Your task to perform on an android device: check storage Image 0: 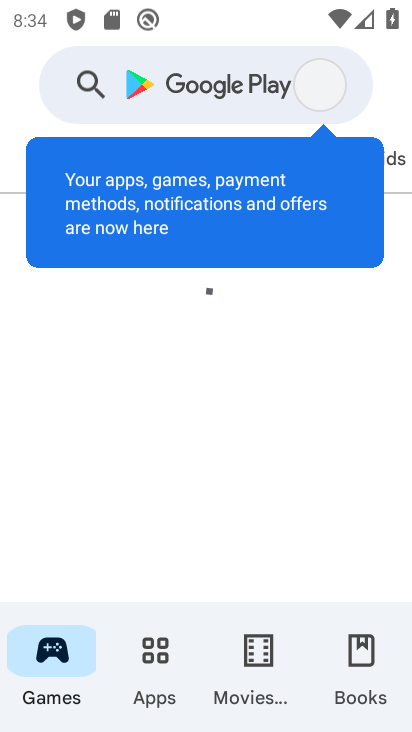
Step 0: press home button
Your task to perform on an android device: check storage Image 1: 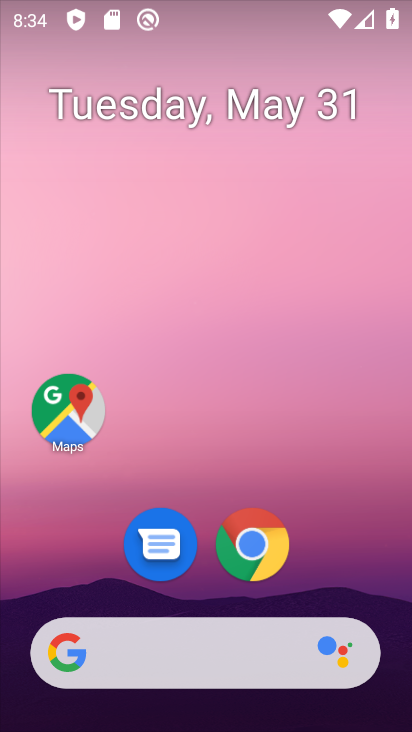
Step 1: drag from (200, 575) to (207, 4)
Your task to perform on an android device: check storage Image 2: 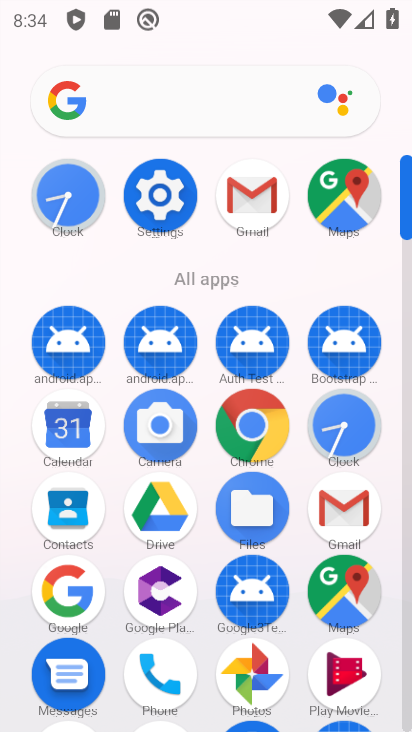
Step 2: click (156, 199)
Your task to perform on an android device: check storage Image 3: 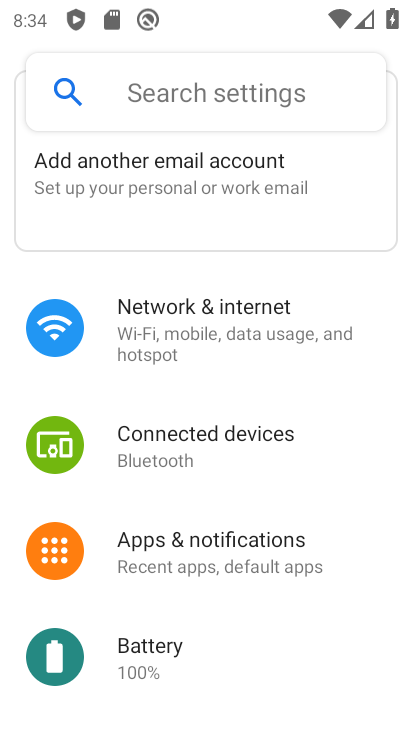
Step 3: drag from (223, 638) to (287, 217)
Your task to perform on an android device: check storage Image 4: 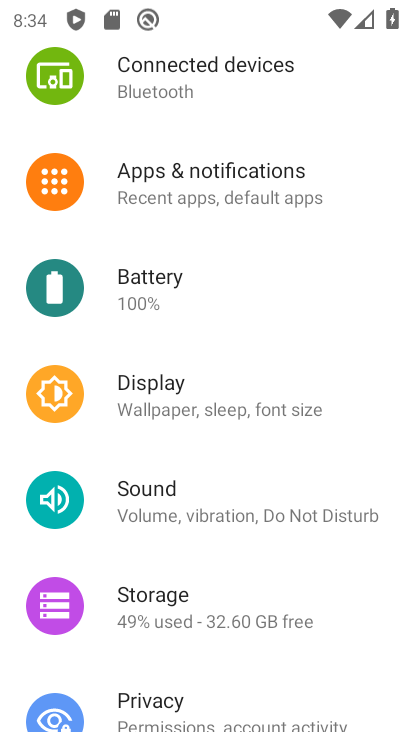
Step 4: click (202, 597)
Your task to perform on an android device: check storage Image 5: 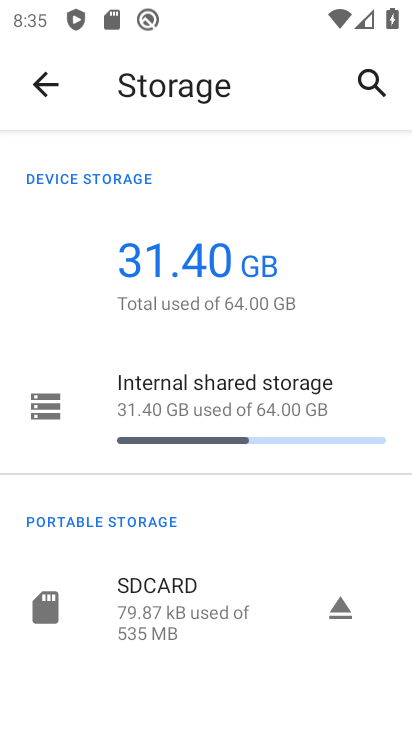
Step 5: task complete